Your task to perform on an android device: set the stopwatch Image 0: 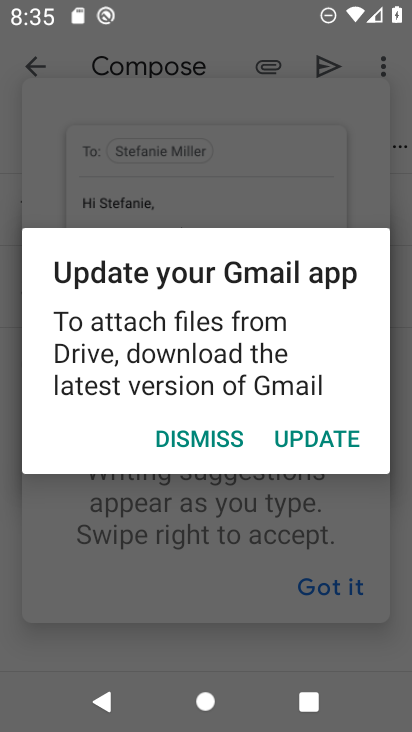
Step 0: press home button
Your task to perform on an android device: set the stopwatch Image 1: 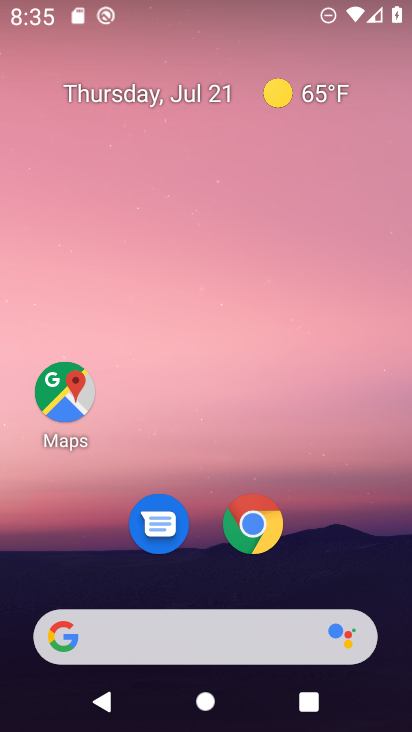
Step 1: drag from (202, 665) to (132, 2)
Your task to perform on an android device: set the stopwatch Image 2: 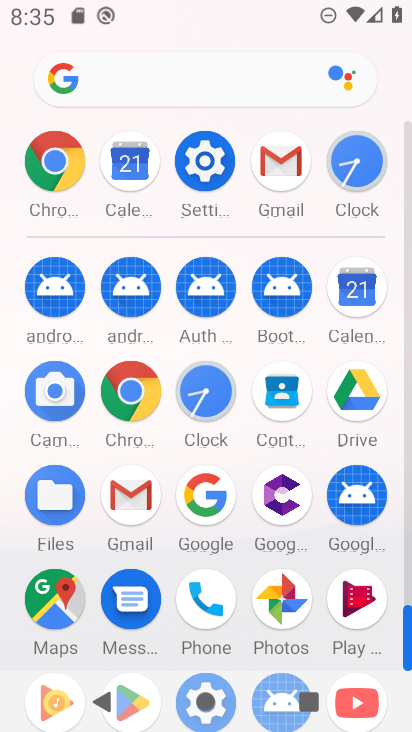
Step 2: click (206, 389)
Your task to perform on an android device: set the stopwatch Image 3: 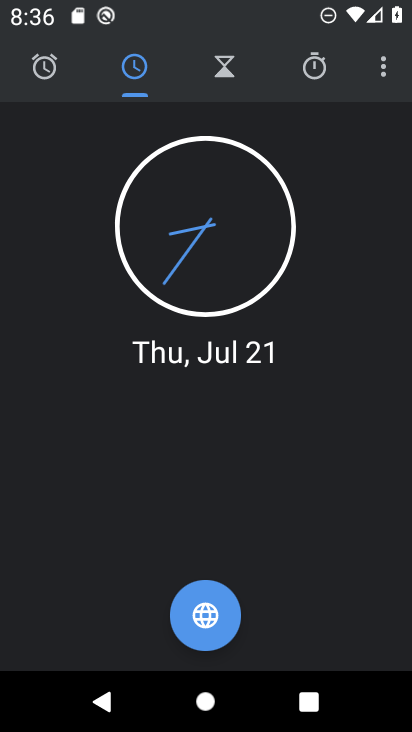
Step 3: click (302, 75)
Your task to perform on an android device: set the stopwatch Image 4: 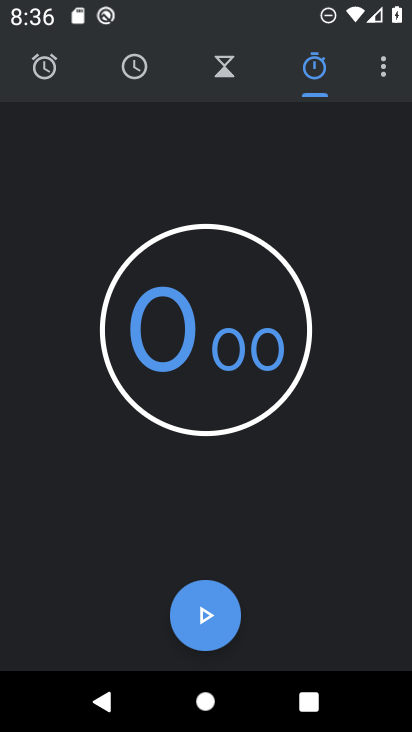
Step 4: click (231, 605)
Your task to perform on an android device: set the stopwatch Image 5: 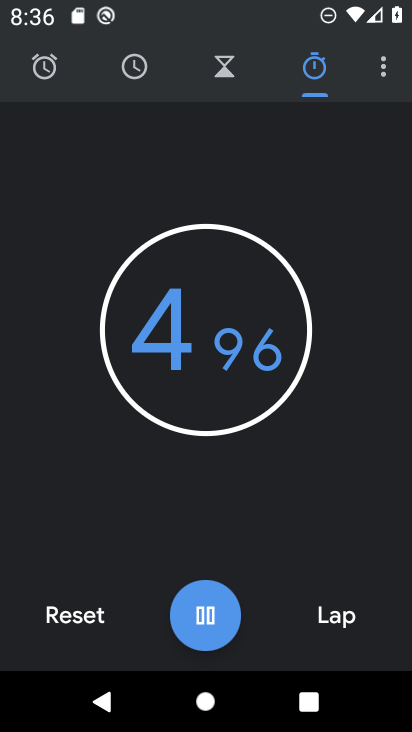
Step 5: click (210, 586)
Your task to perform on an android device: set the stopwatch Image 6: 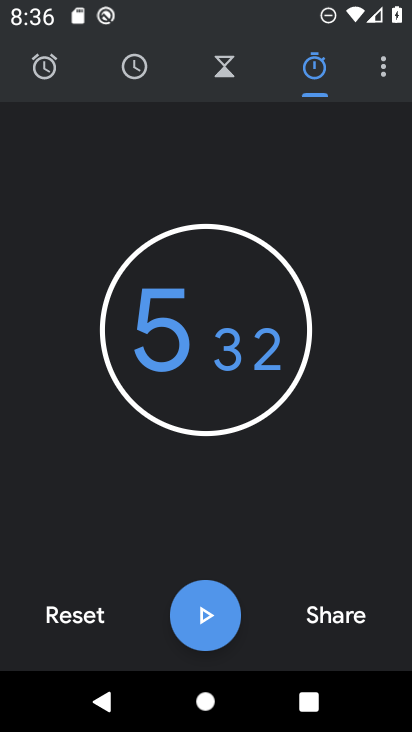
Step 6: task complete